Your task to perform on an android device: turn pop-ups off in chrome Image 0: 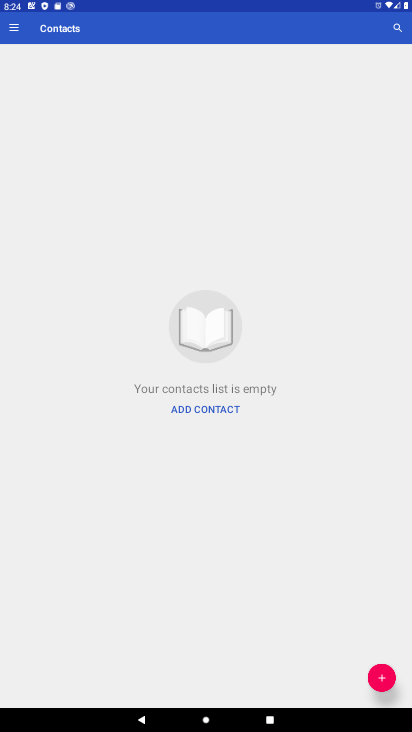
Step 0: press home button
Your task to perform on an android device: turn pop-ups off in chrome Image 1: 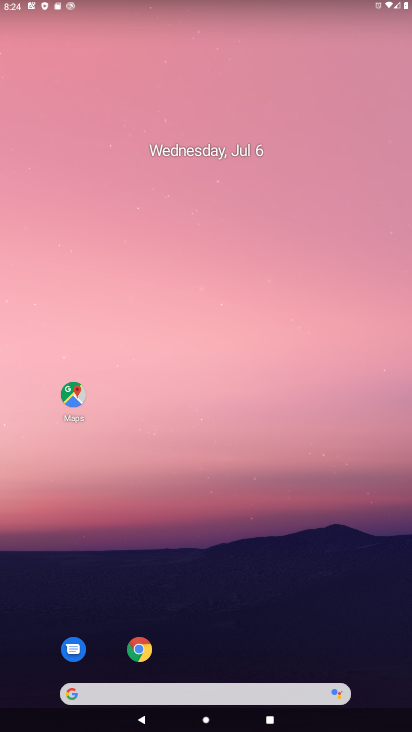
Step 1: drag from (379, 650) to (277, 52)
Your task to perform on an android device: turn pop-ups off in chrome Image 2: 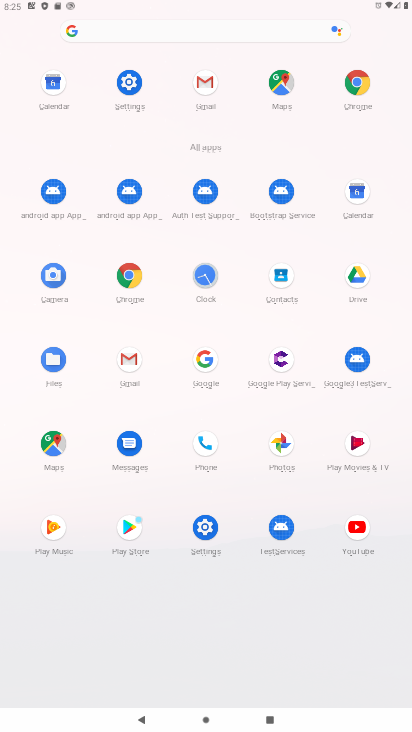
Step 2: click (129, 278)
Your task to perform on an android device: turn pop-ups off in chrome Image 3: 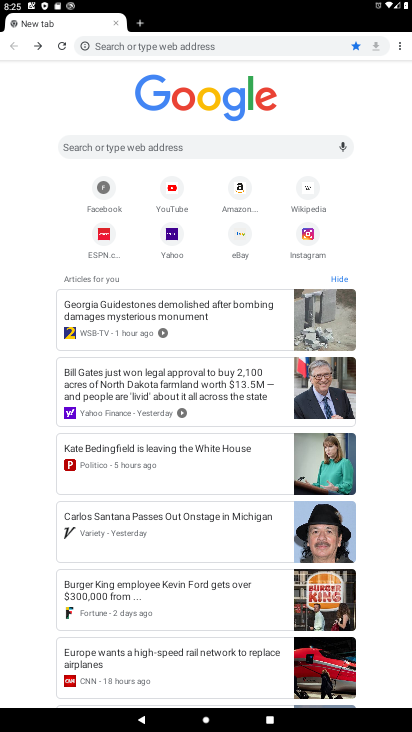
Step 3: click (401, 46)
Your task to perform on an android device: turn pop-ups off in chrome Image 4: 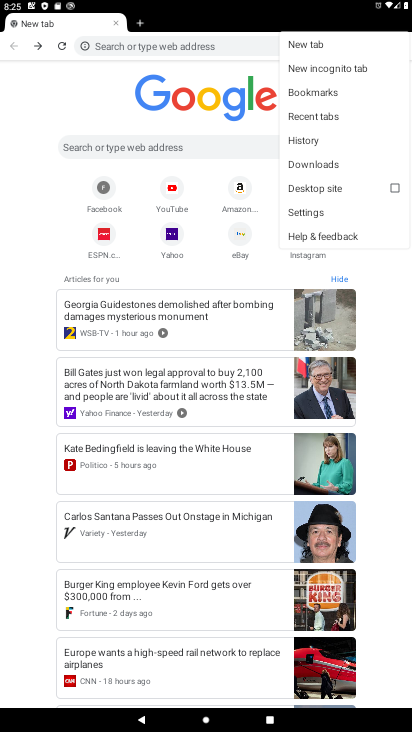
Step 4: click (303, 214)
Your task to perform on an android device: turn pop-ups off in chrome Image 5: 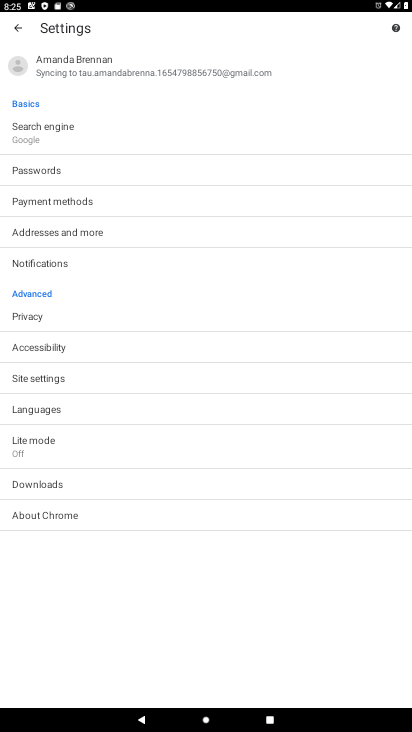
Step 5: click (29, 378)
Your task to perform on an android device: turn pop-ups off in chrome Image 6: 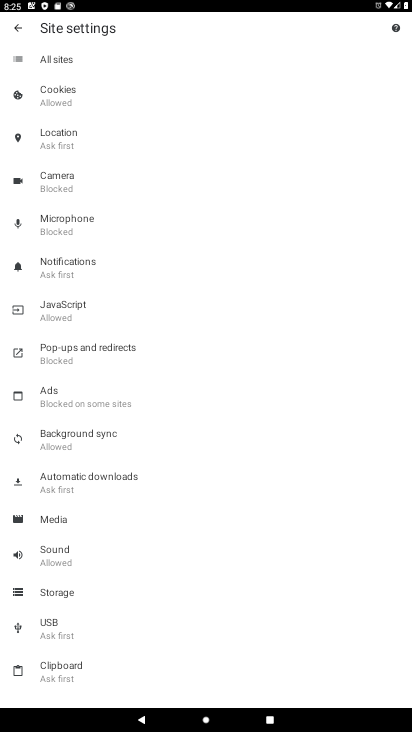
Step 6: click (62, 346)
Your task to perform on an android device: turn pop-ups off in chrome Image 7: 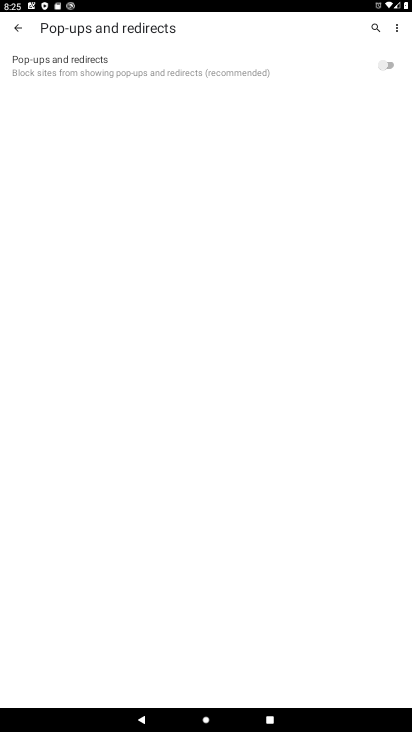
Step 7: task complete